Your task to perform on an android device: change the clock display to show seconds Image 0: 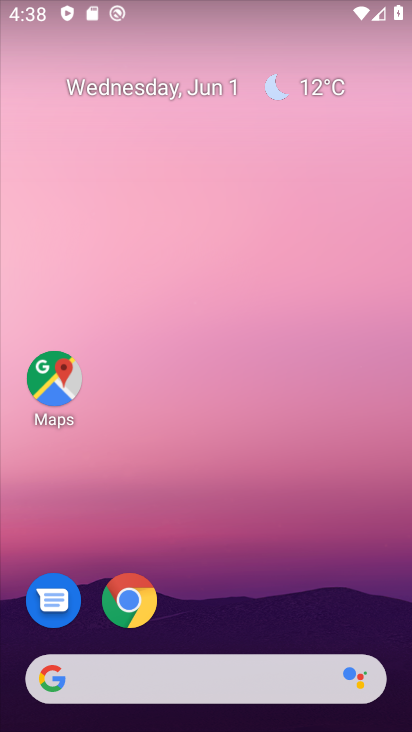
Step 0: drag from (252, 610) to (216, 19)
Your task to perform on an android device: change the clock display to show seconds Image 1: 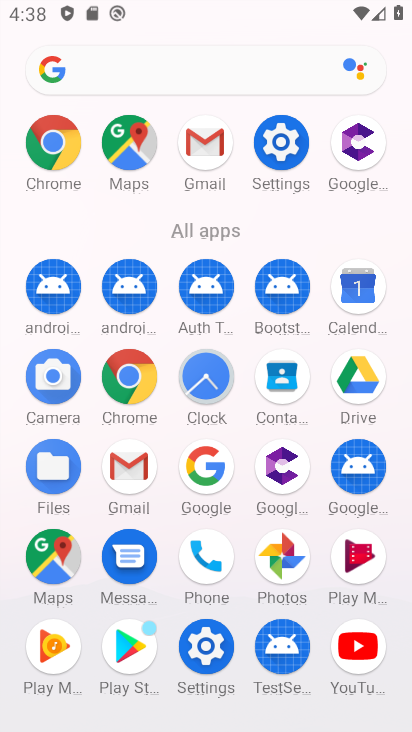
Step 1: click (205, 375)
Your task to perform on an android device: change the clock display to show seconds Image 2: 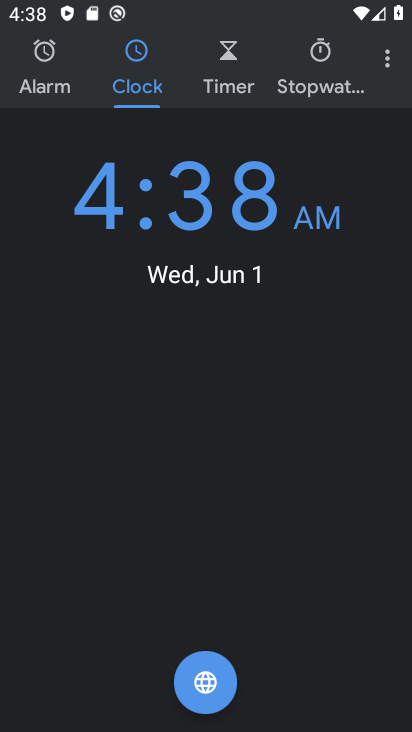
Step 2: click (389, 59)
Your task to perform on an android device: change the clock display to show seconds Image 3: 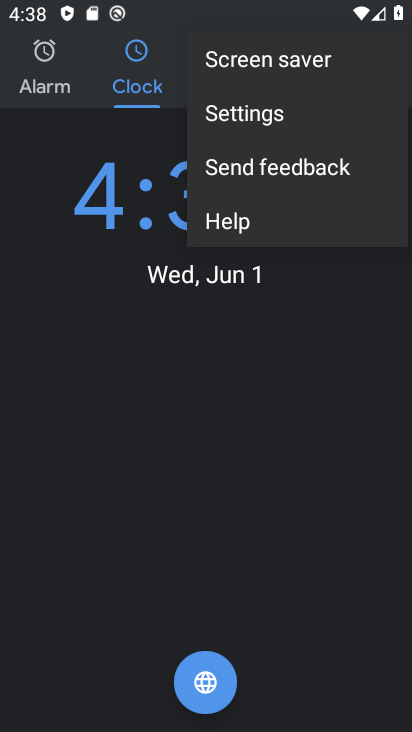
Step 3: click (252, 113)
Your task to perform on an android device: change the clock display to show seconds Image 4: 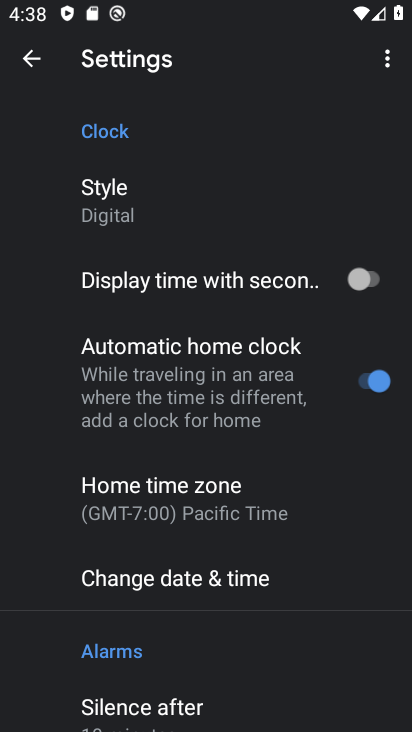
Step 4: click (369, 277)
Your task to perform on an android device: change the clock display to show seconds Image 5: 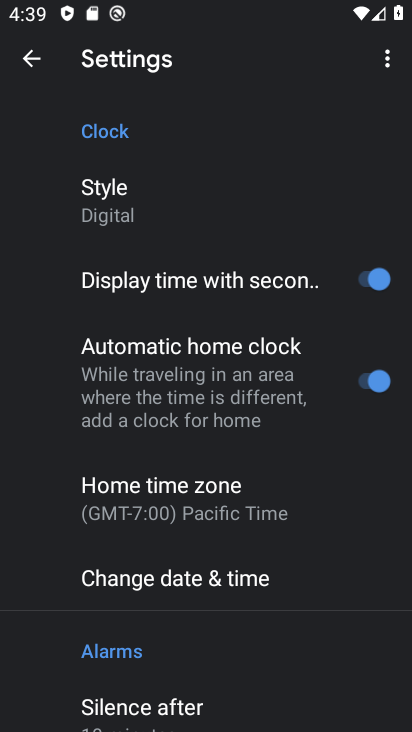
Step 5: task complete